Your task to perform on an android device: turn off javascript in the chrome app Image 0: 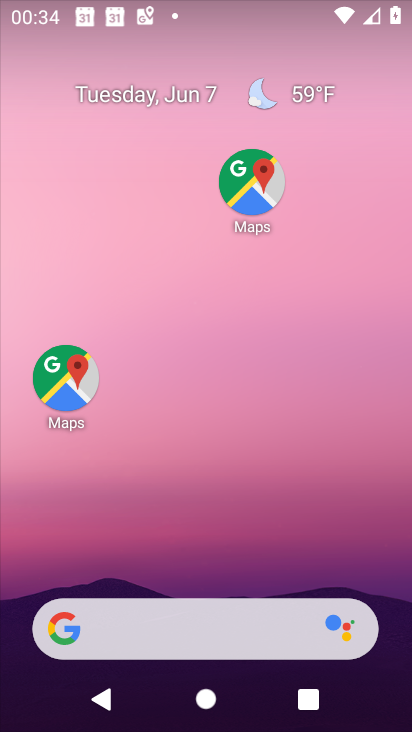
Step 0: click (158, 84)
Your task to perform on an android device: turn off javascript in the chrome app Image 1: 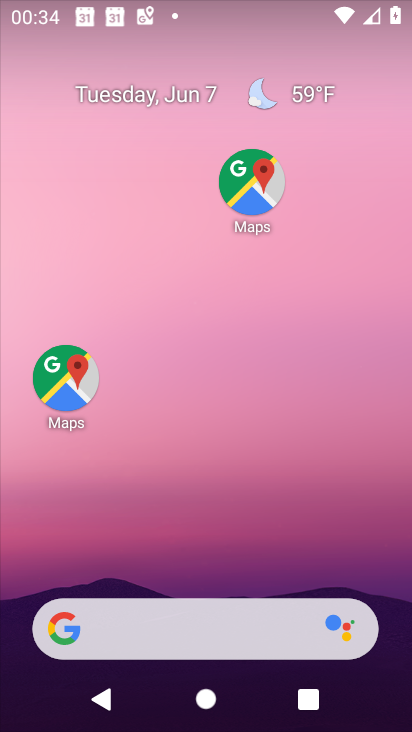
Step 1: drag from (222, 562) to (225, 56)
Your task to perform on an android device: turn off javascript in the chrome app Image 2: 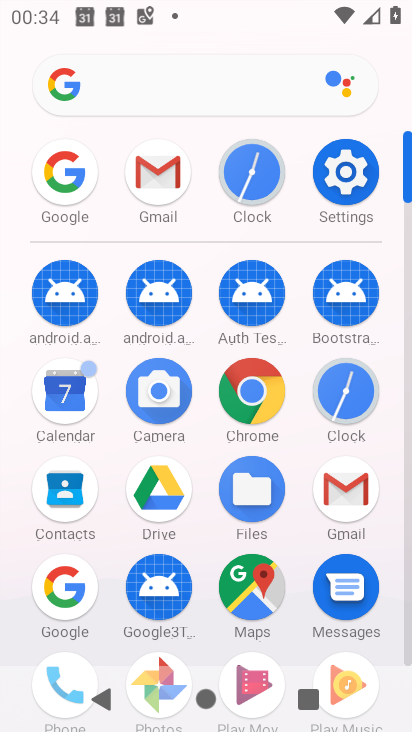
Step 2: click (254, 395)
Your task to perform on an android device: turn off javascript in the chrome app Image 3: 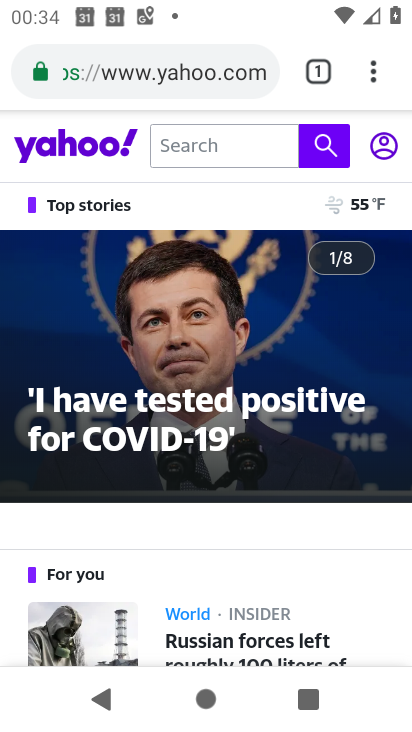
Step 3: click (367, 70)
Your task to perform on an android device: turn off javascript in the chrome app Image 4: 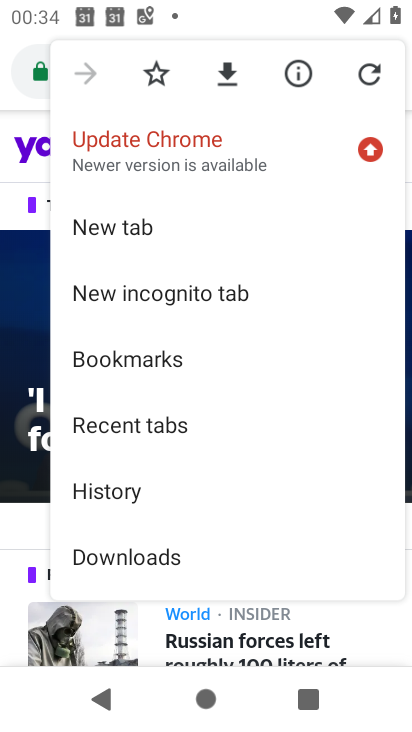
Step 4: drag from (244, 525) to (242, 93)
Your task to perform on an android device: turn off javascript in the chrome app Image 5: 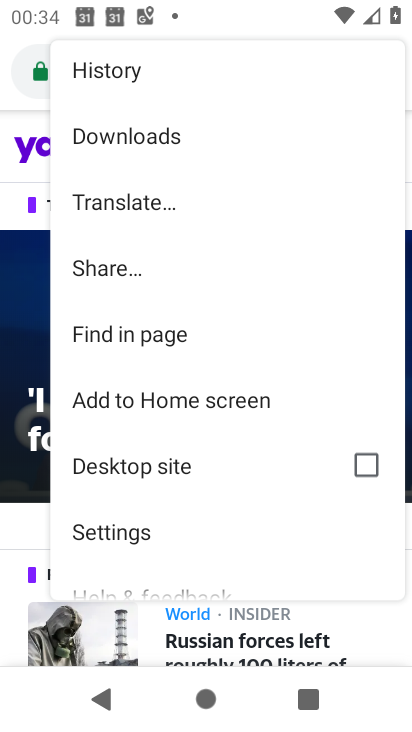
Step 5: click (130, 534)
Your task to perform on an android device: turn off javascript in the chrome app Image 6: 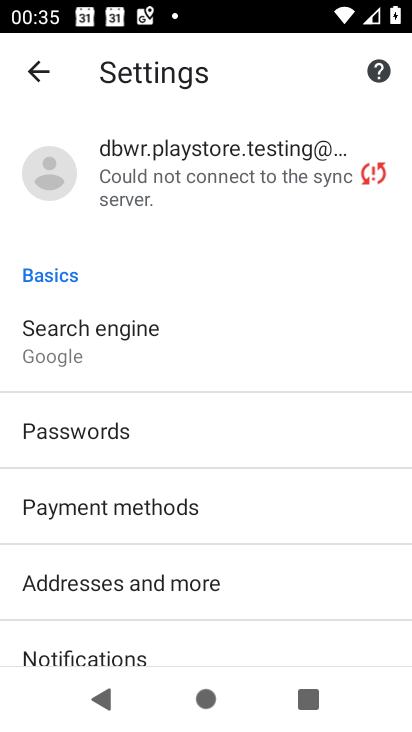
Step 6: drag from (191, 609) to (203, 187)
Your task to perform on an android device: turn off javascript in the chrome app Image 7: 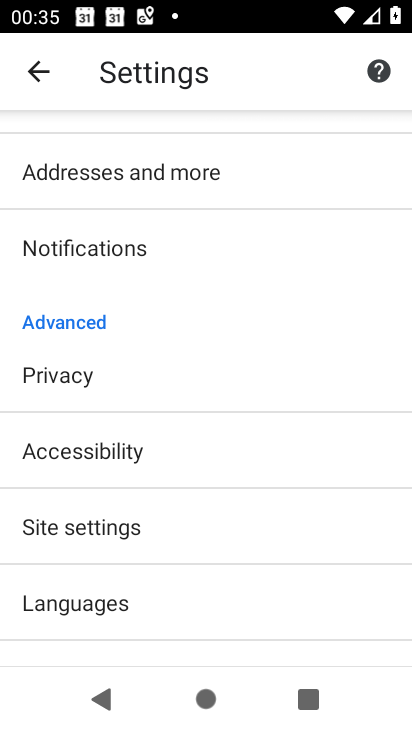
Step 7: click (66, 533)
Your task to perform on an android device: turn off javascript in the chrome app Image 8: 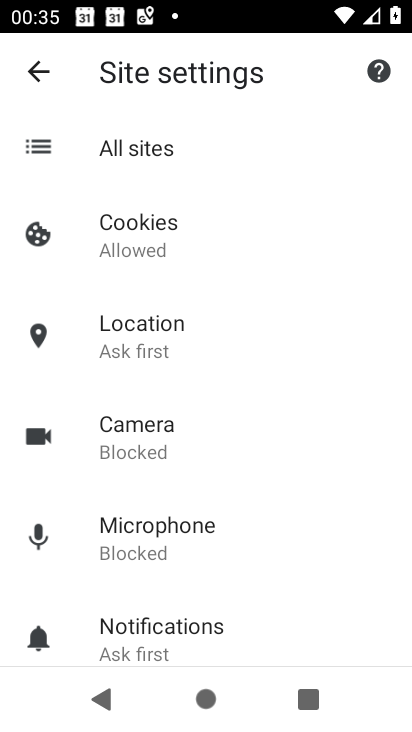
Step 8: drag from (178, 527) to (181, 141)
Your task to perform on an android device: turn off javascript in the chrome app Image 9: 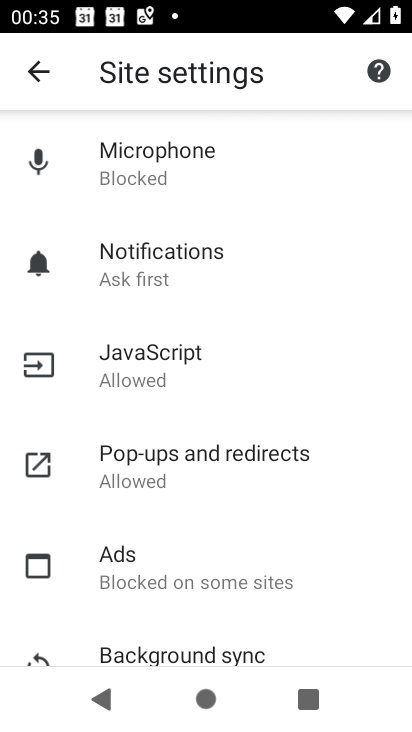
Step 9: click (139, 378)
Your task to perform on an android device: turn off javascript in the chrome app Image 10: 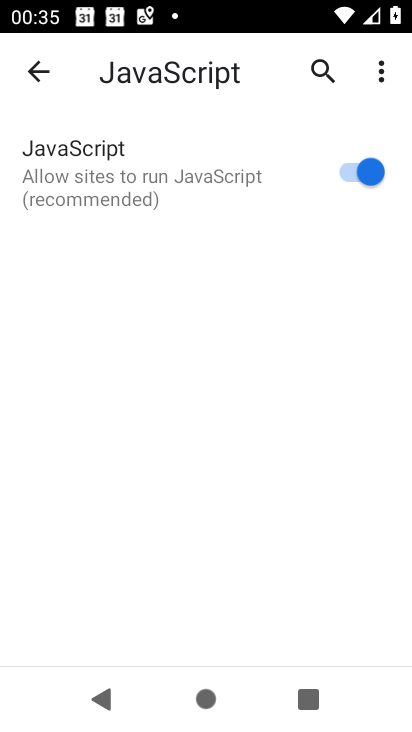
Step 10: click (371, 184)
Your task to perform on an android device: turn off javascript in the chrome app Image 11: 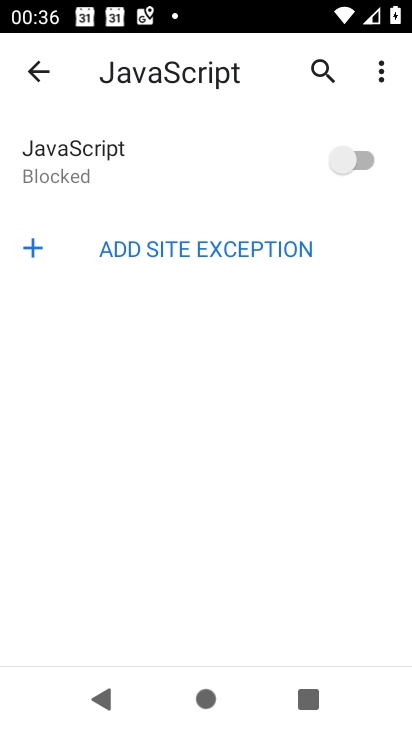
Step 11: task complete